Your task to perform on an android device: Go to Yahoo.com Image 0: 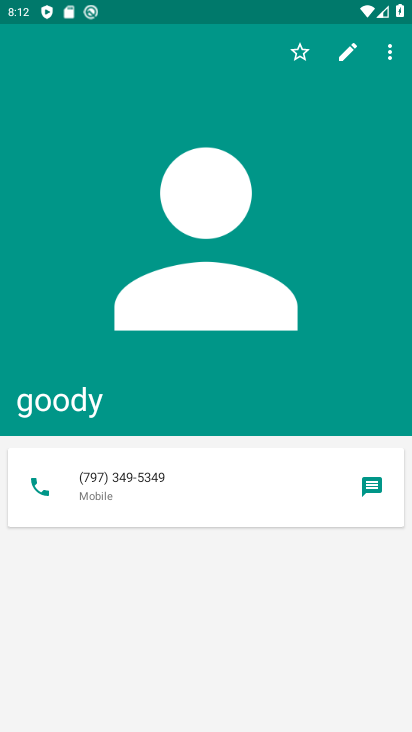
Step 0: press home button
Your task to perform on an android device: Go to Yahoo.com Image 1: 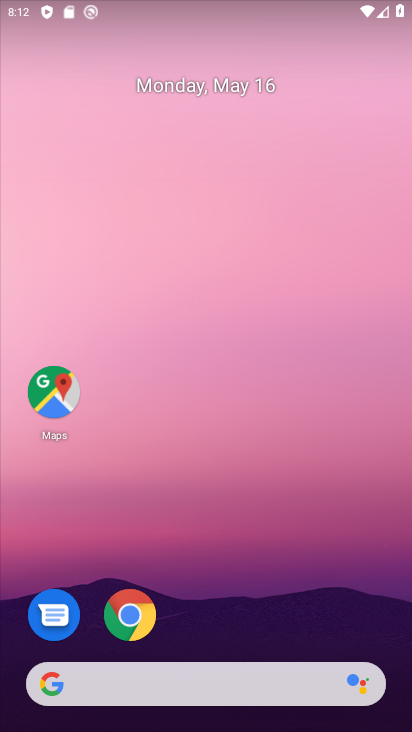
Step 1: click (128, 607)
Your task to perform on an android device: Go to Yahoo.com Image 2: 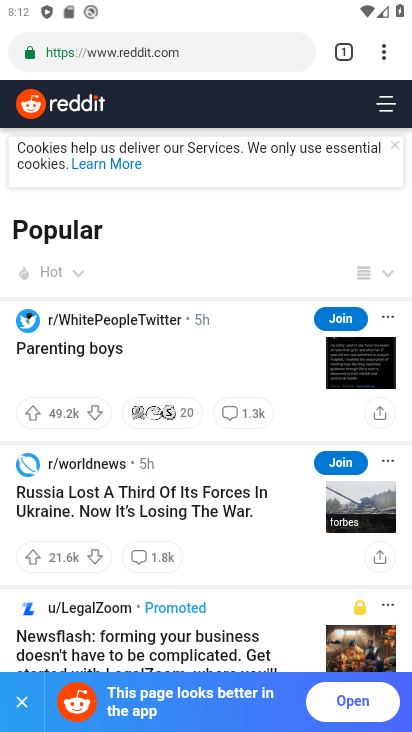
Step 2: click (229, 59)
Your task to perform on an android device: Go to Yahoo.com Image 3: 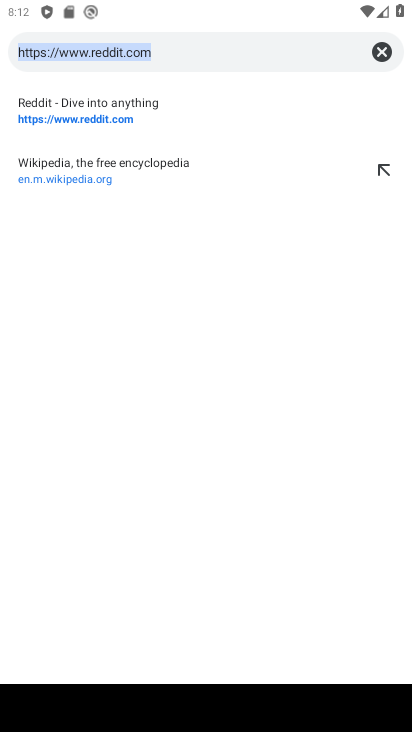
Step 3: type "yahoo"
Your task to perform on an android device: Go to Yahoo.com Image 4: 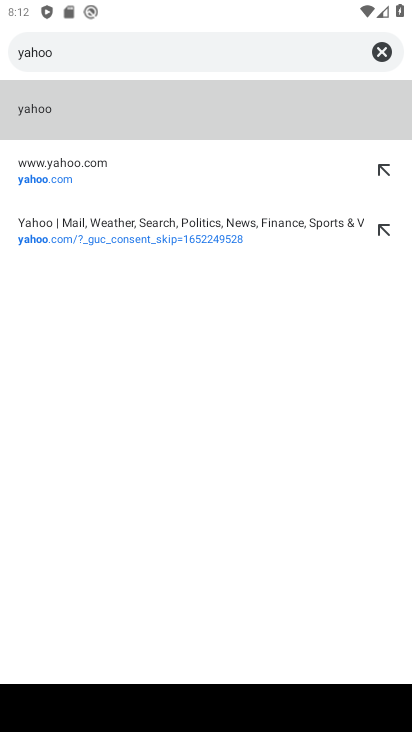
Step 4: click (135, 182)
Your task to perform on an android device: Go to Yahoo.com Image 5: 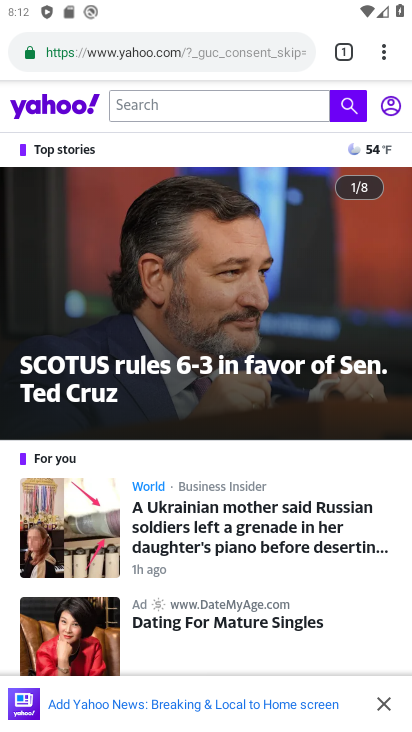
Step 5: task complete